Your task to perform on an android device: uninstall "Google Chrome" Image 0: 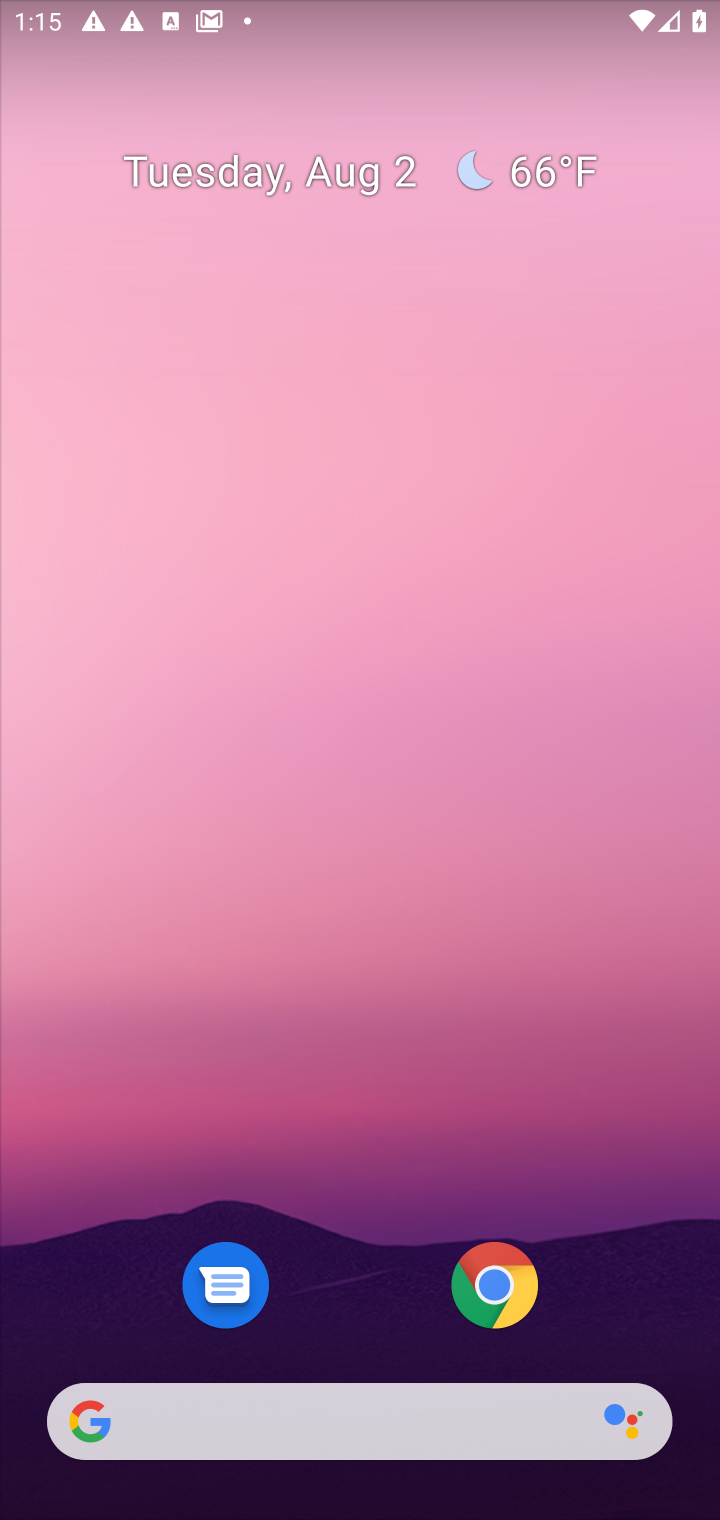
Step 0: drag from (594, 1316) to (571, 247)
Your task to perform on an android device: uninstall "Google Chrome" Image 1: 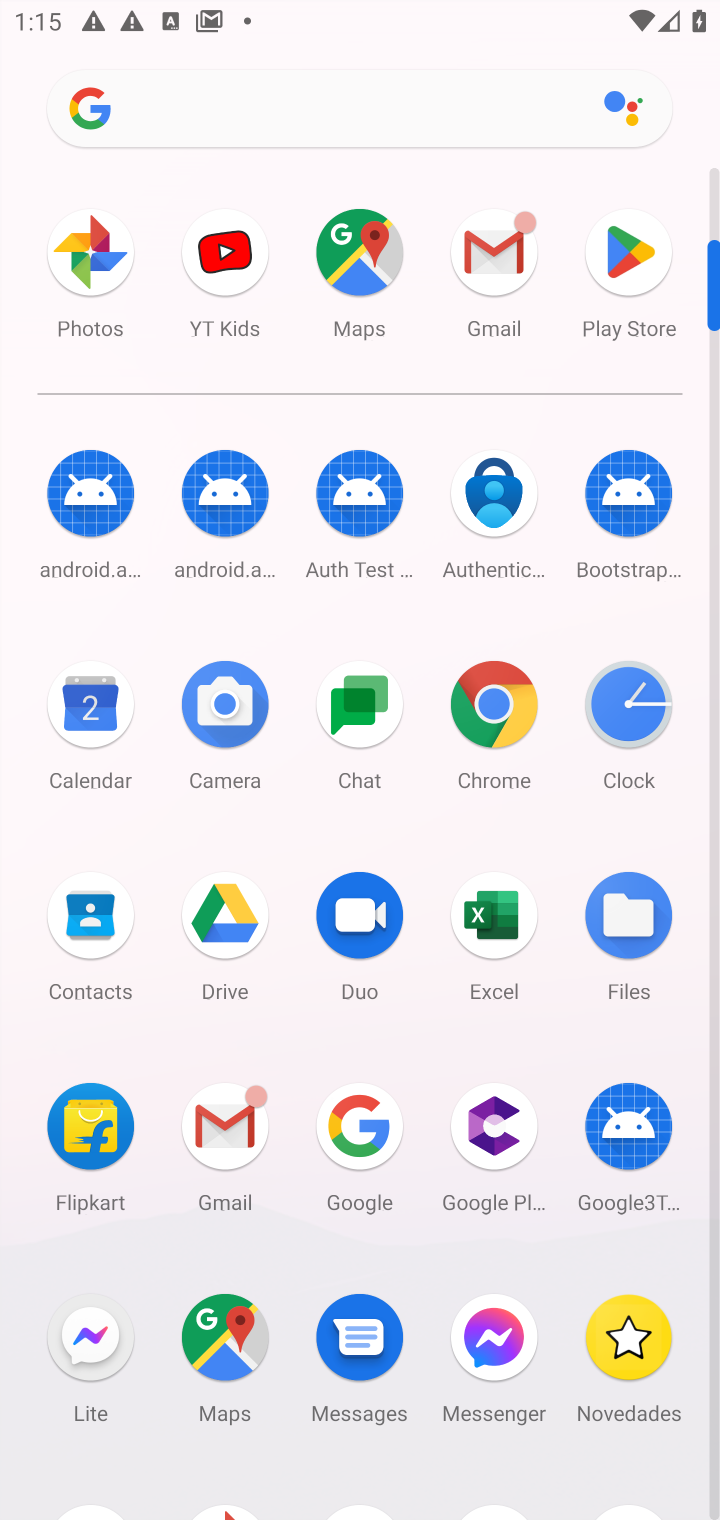
Step 1: drag from (320, 1083) to (312, 495)
Your task to perform on an android device: uninstall "Google Chrome" Image 2: 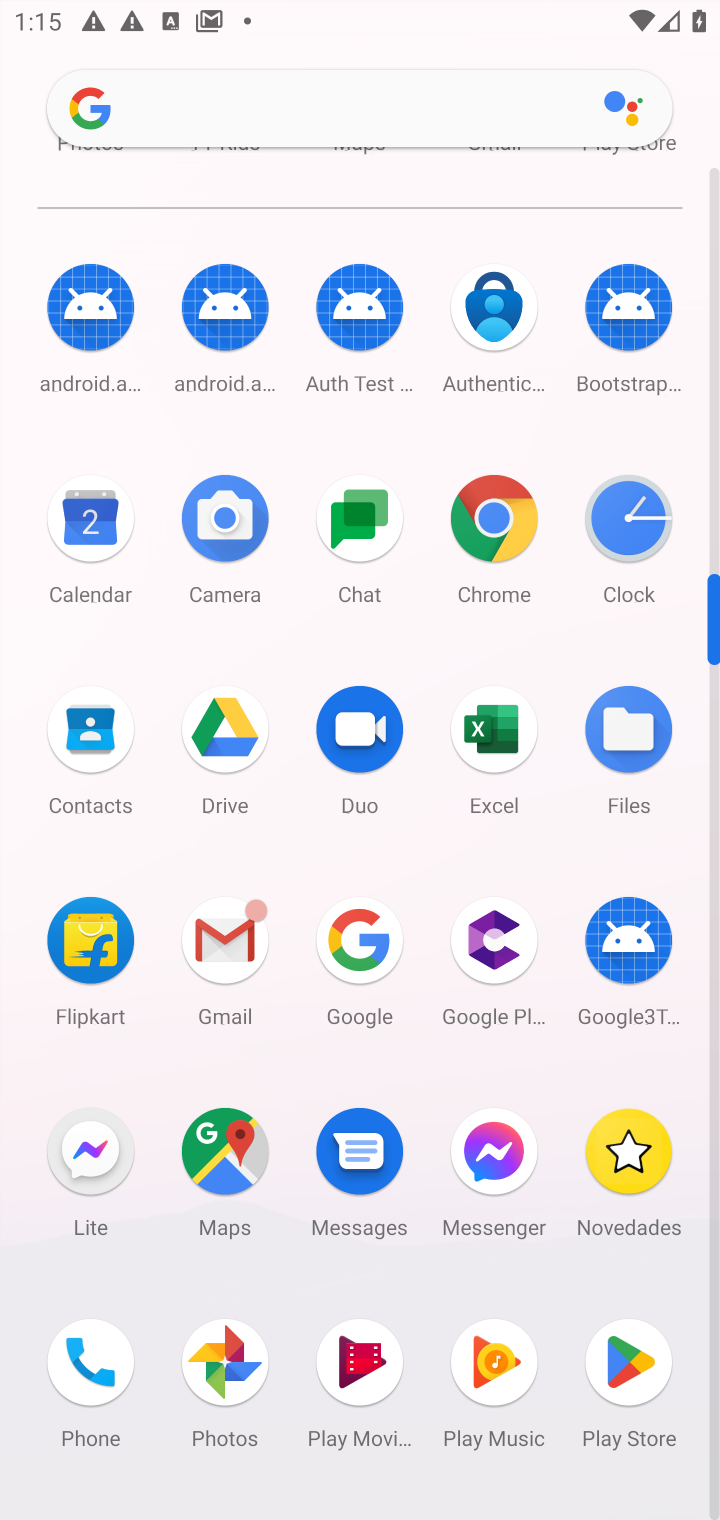
Step 2: click (654, 1358)
Your task to perform on an android device: uninstall "Google Chrome" Image 3: 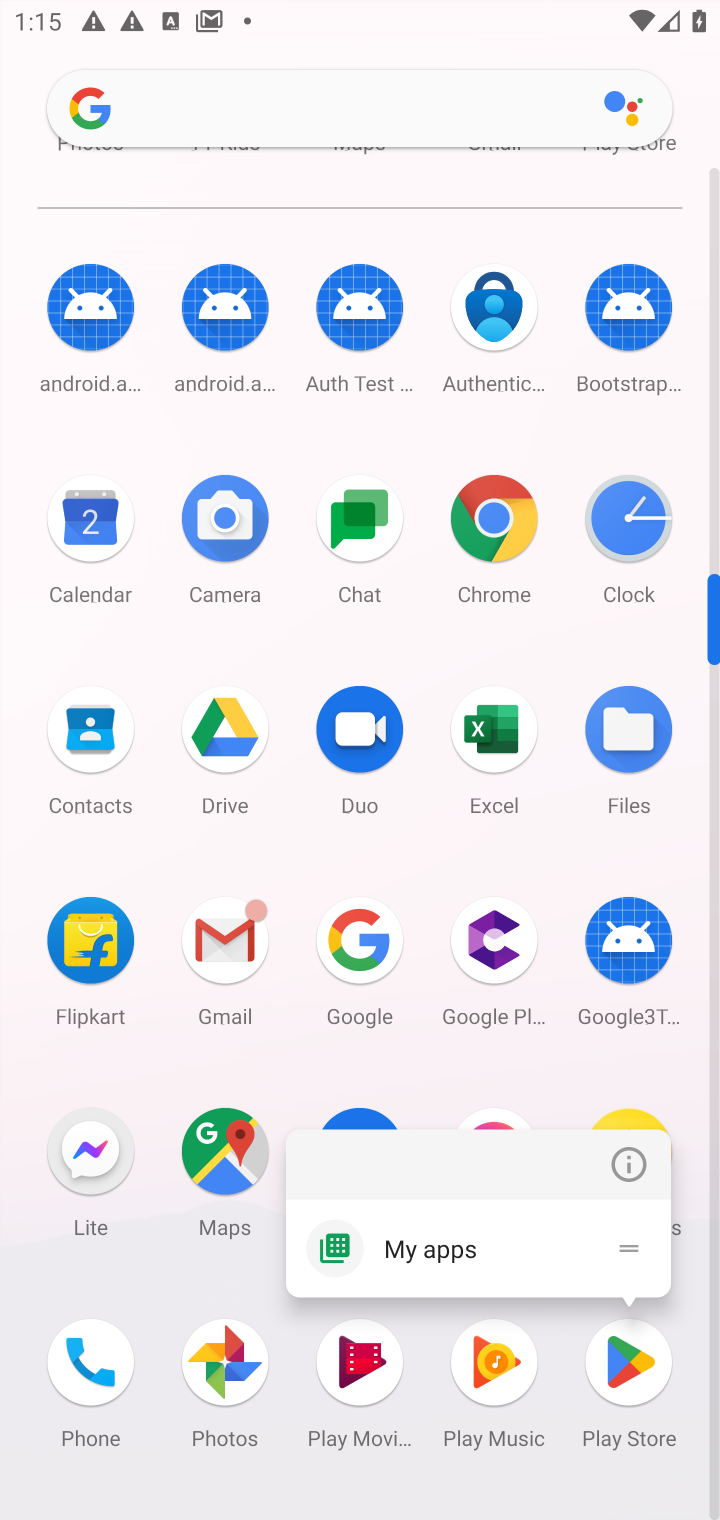
Step 3: click (610, 1362)
Your task to perform on an android device: uninstall "Google Chrome" Image 4: 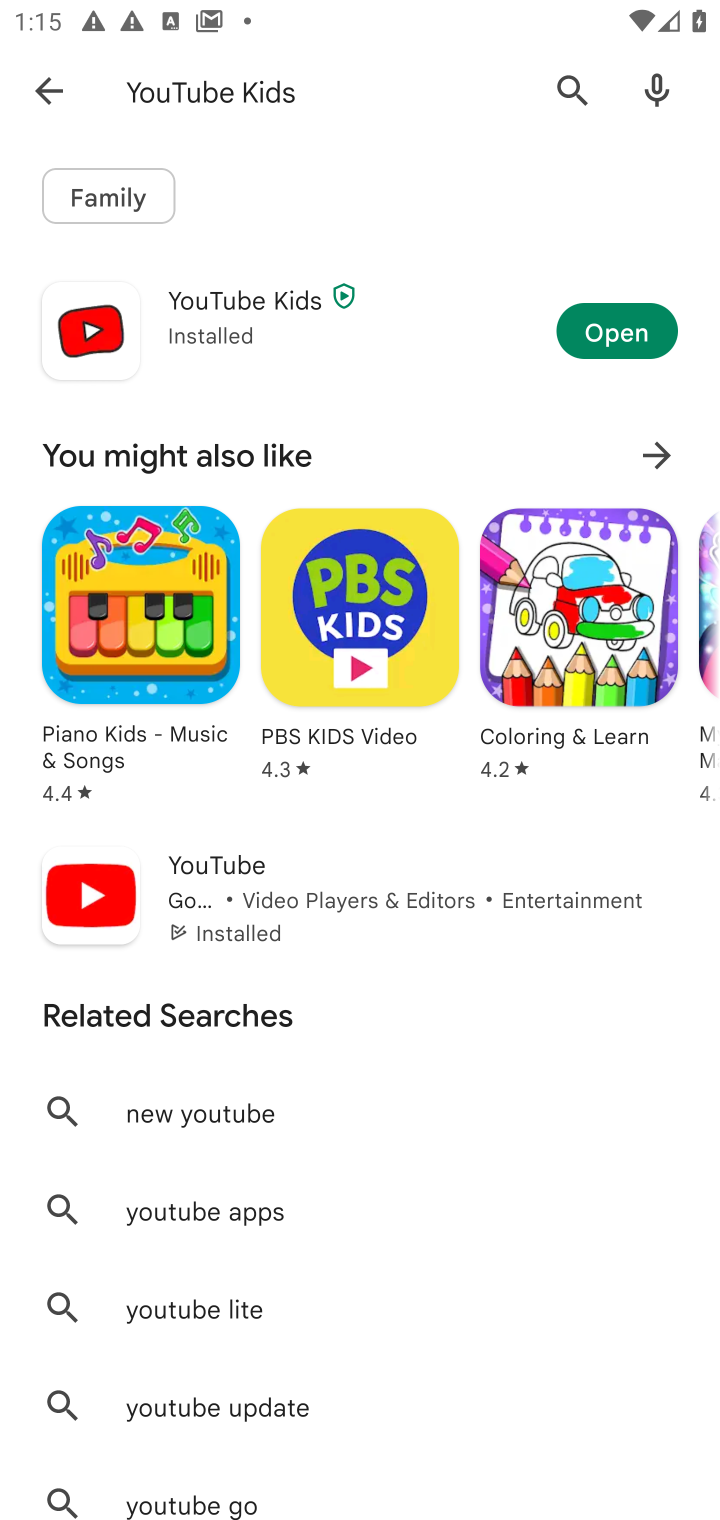
Step 4: click (570, 67)
Your task to perform on an android device: uninstall "Google Chrome" Image 5: 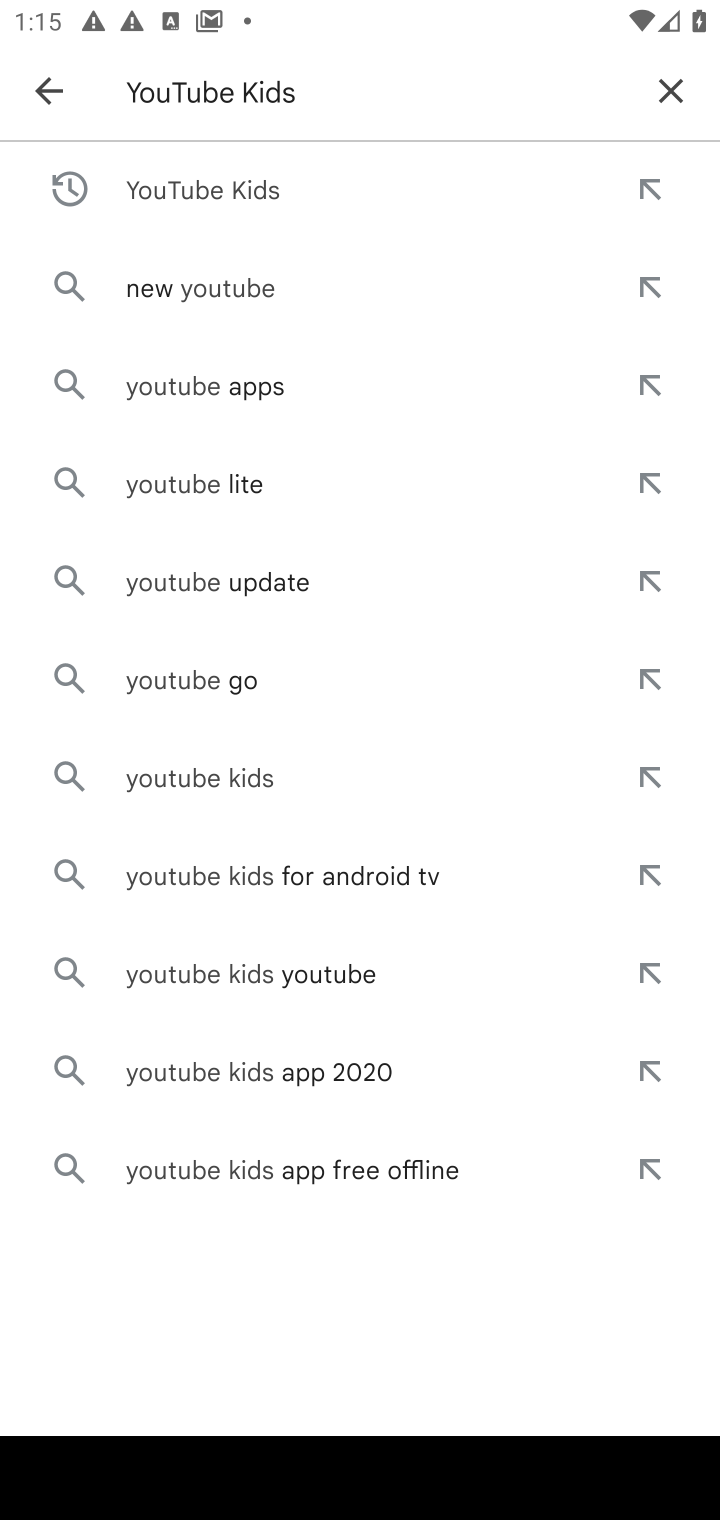
Step 5: click (683, 86)
Your task to perform on an android device: uninstall "Google Chrome" Image 6: 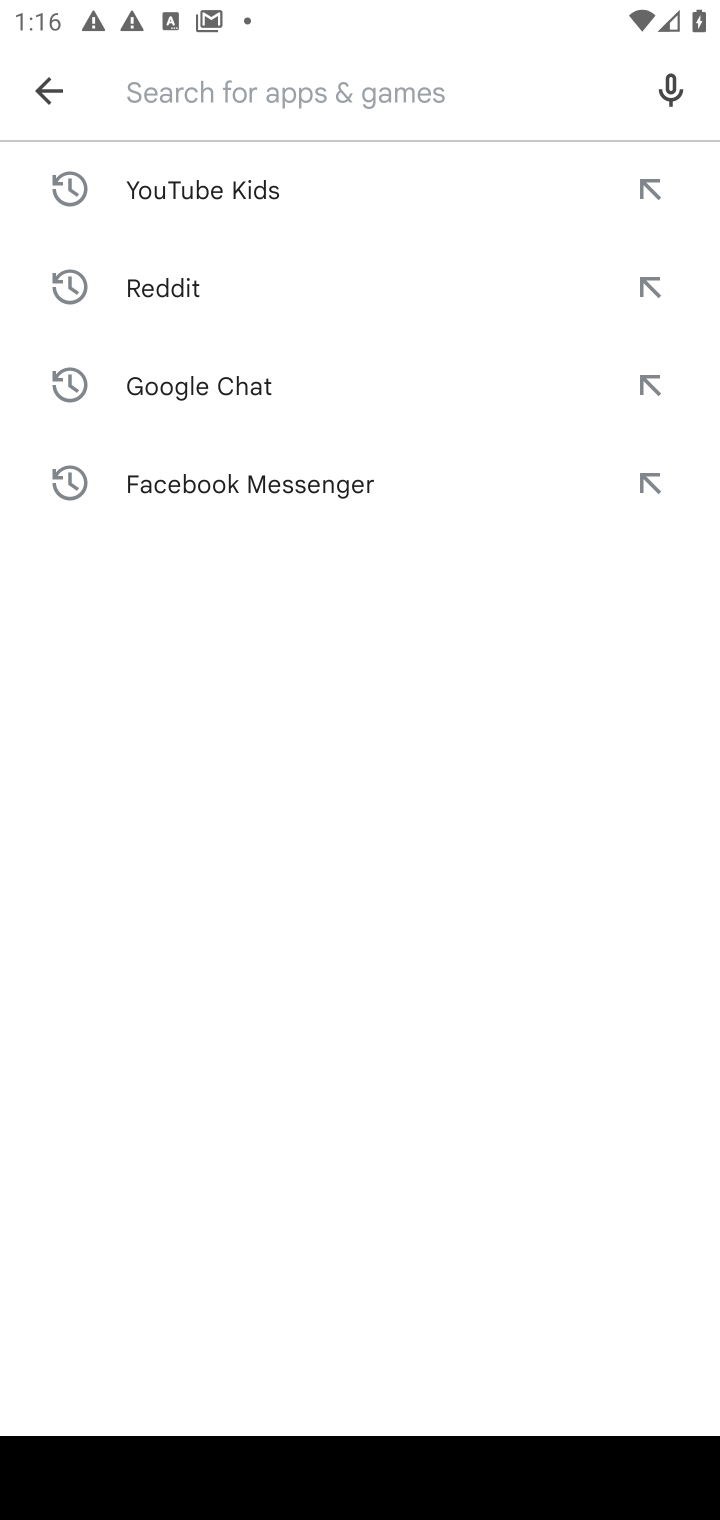
Step 6: type "Google Chrome"
Your task to perform on an android device: uninstall "Google Chrome" Image 7: 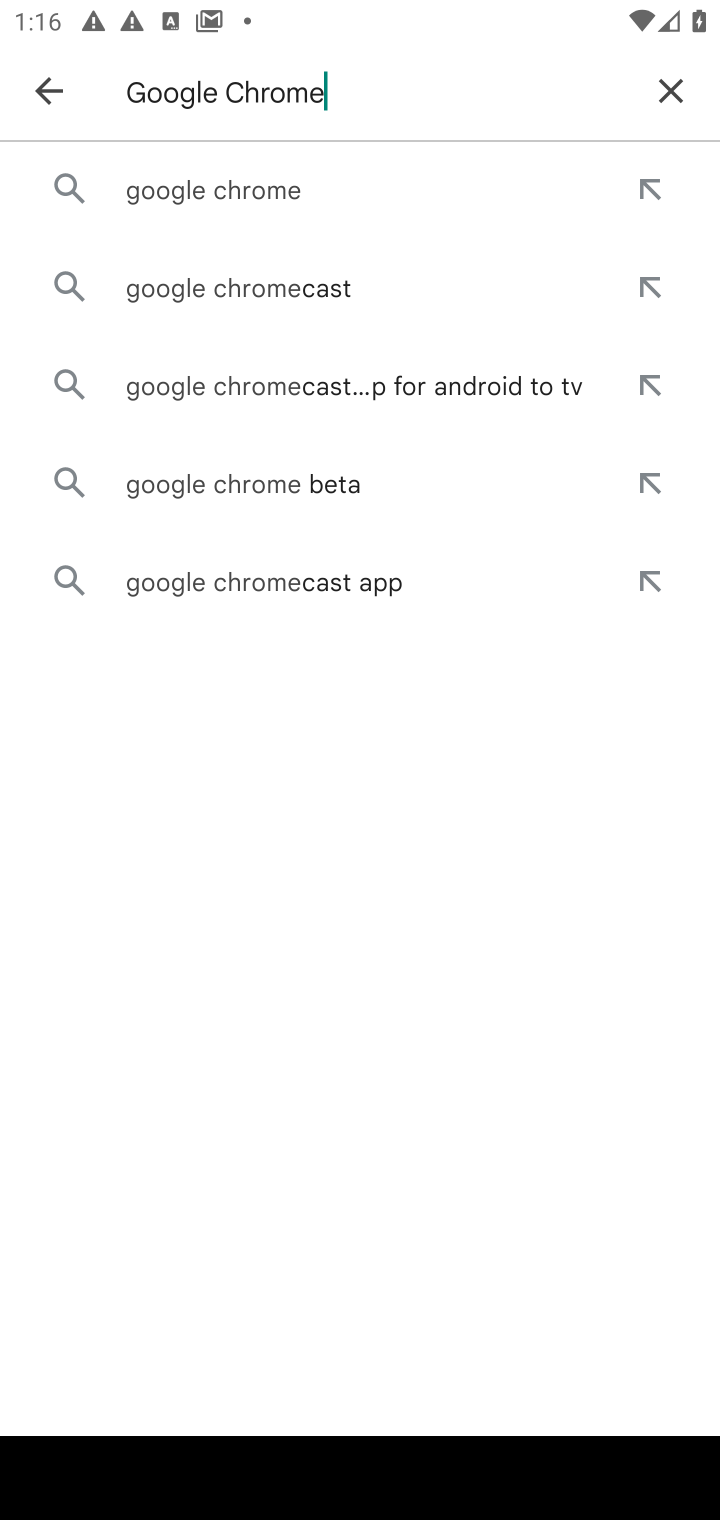
Step 7: press enter
Your task to perform on an android device: uninstall "Google Chrome" Image 8: 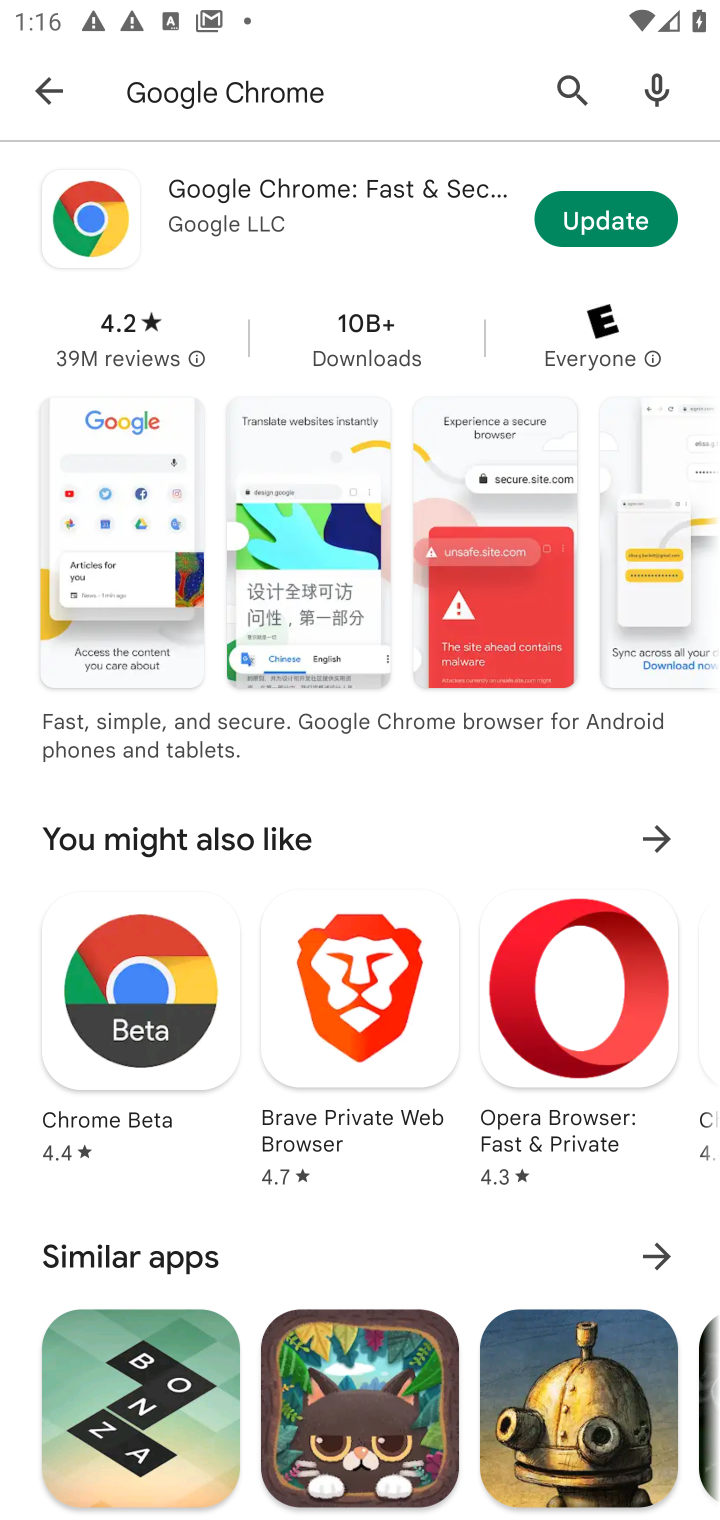
Step 8: click (280, 174)
Your task to perform on an android device: uninstall "Google Chrome" Image 9: 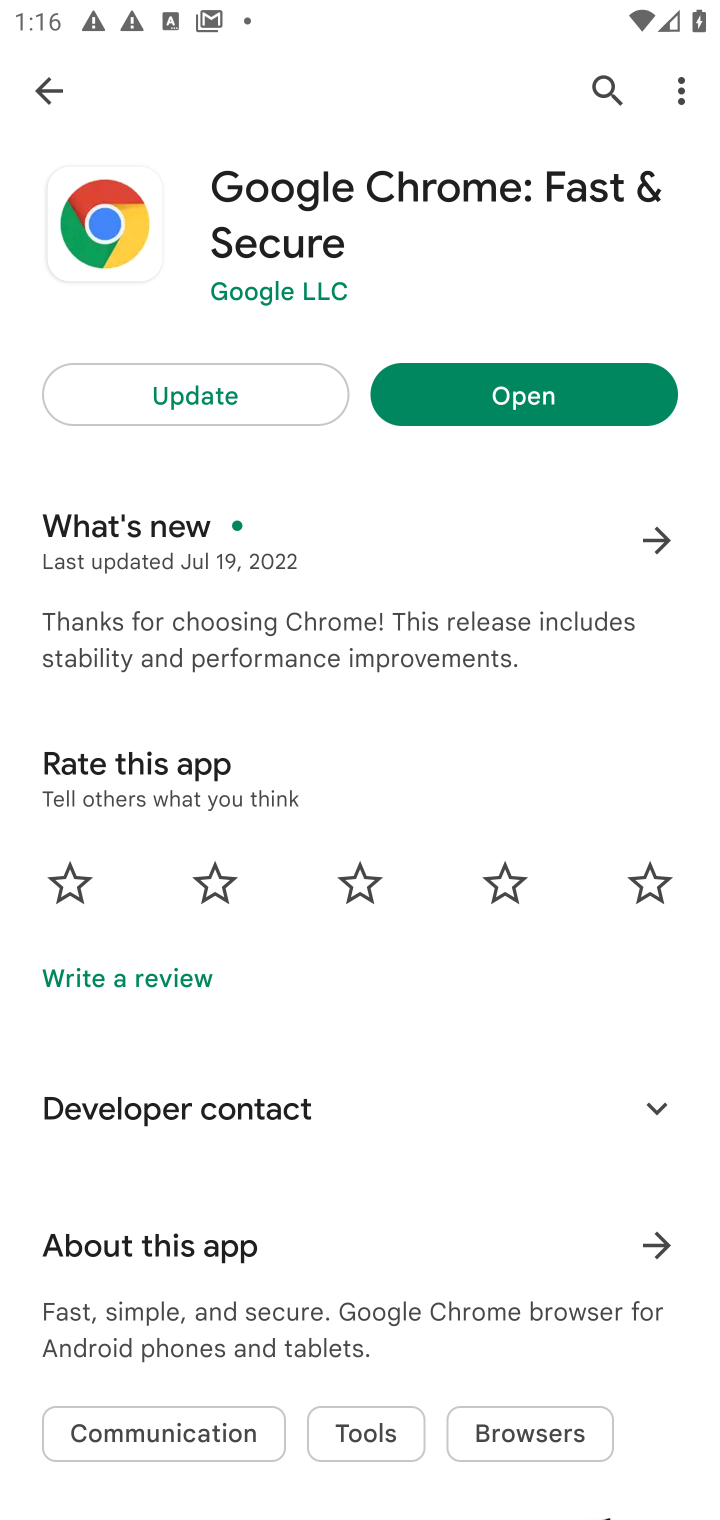
Step 9: task complete